Your task to perform on an android device: turn on wifi Image 0: 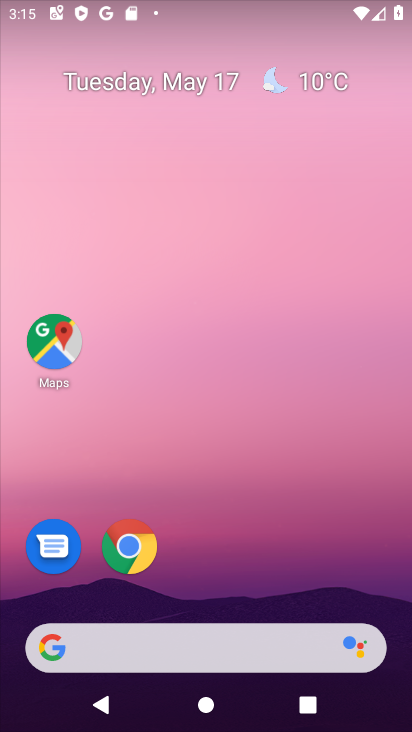
Step 0: drag from (215, 571) to (291, 57)
Your task to perform on an android device: turn on wifi Image 1: 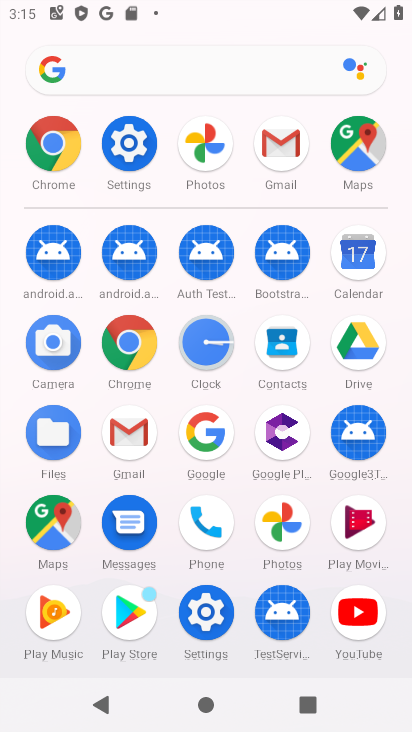
Step 1: click (139, 156)
Your task to perform on an android device: turn on wifi Image 2: 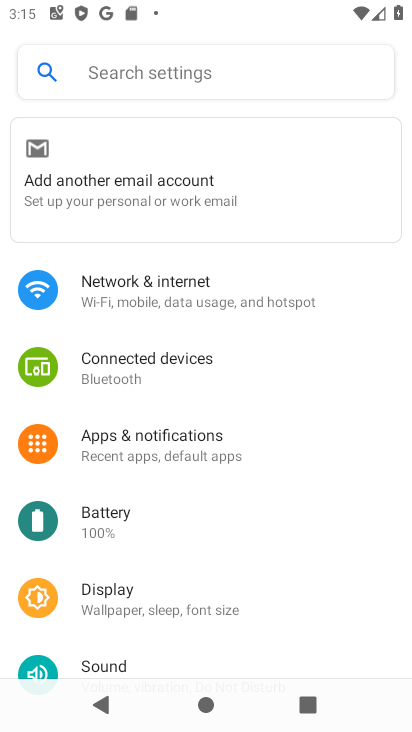
Step 2: click (134, 298)
Your task to perform on an android device: turn on wifi Image 3: 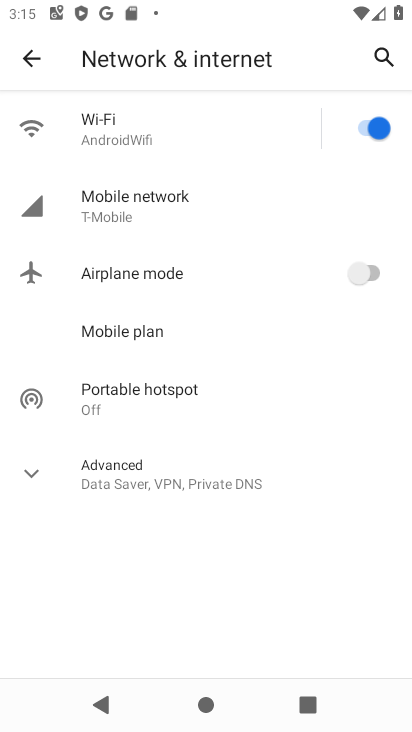
Step 3: task complete